Your task to perform on an android device: Do I have any events tomorrow? Image 0: 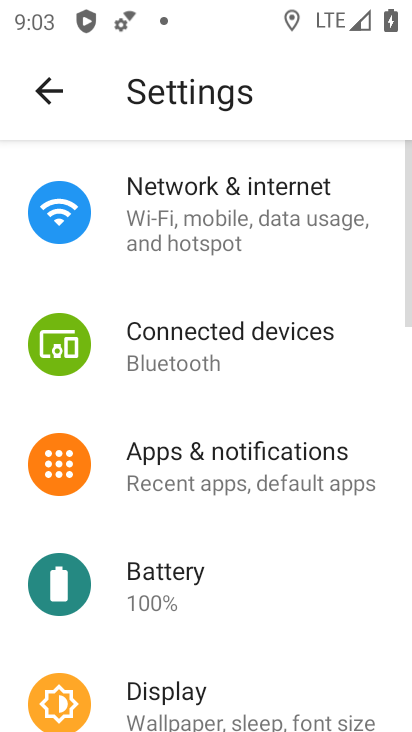
Step 0: press home button
Your task to perform on an android device: Do I have any events tomorrow? Image 1: 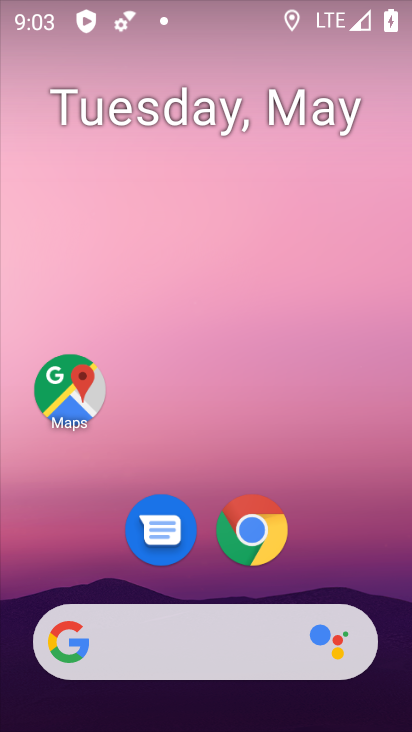
Step 1: drag from (344, 545) to (359, 219)
Your task to perform on an android device: Do I have any events tomorrow? Image 2: 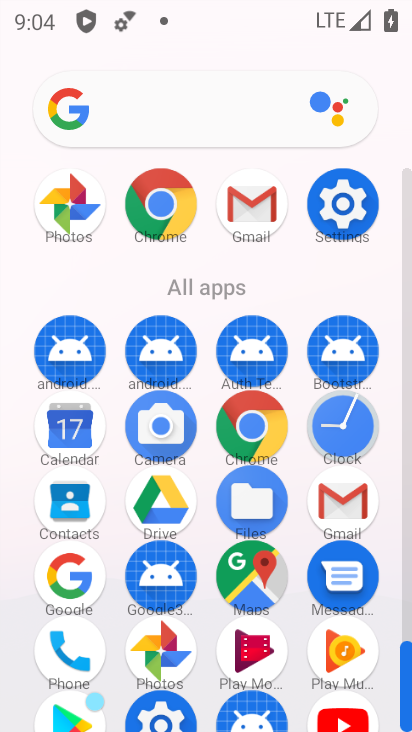
Step 2: click (79, 425)
Your task to perform on an android device: Do I have any events tomorrow? Image 3: 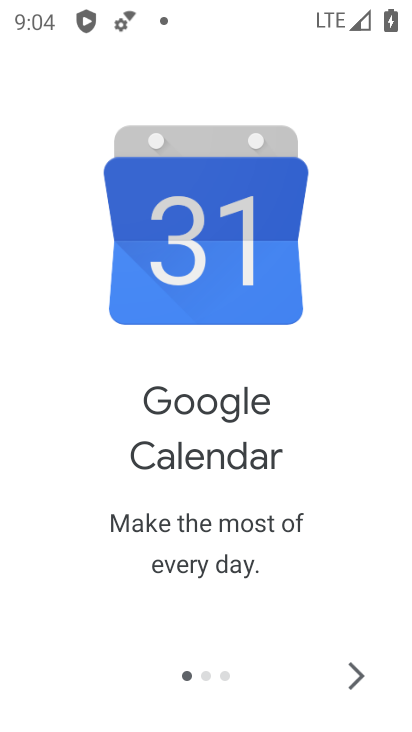
Step 3: click (353, 679)
Your task to perform on an android device: Do I have any events tomorrow? Image 4: 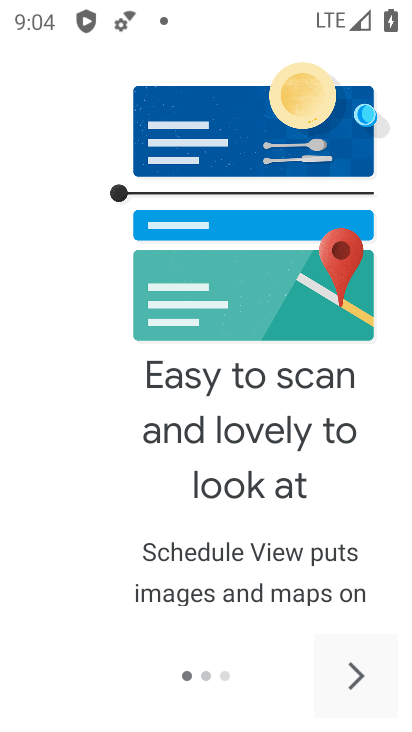
Step 4: click (353, 679)
Your task to perform on an android device: Do I have any events tomorrow? Image 5: 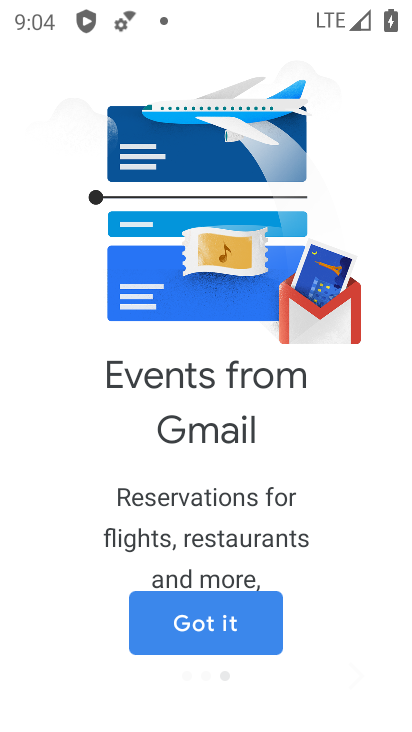
Step 5: click (353, 678)
Your task to perform on an android device: Do I have any events tomorrow? Image 6: 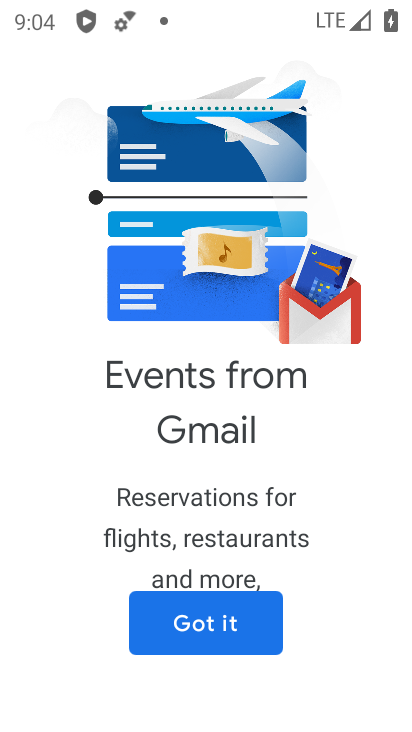
Step 6: click (192, 625)
Your task to perform on an android device: Do I have any events tomorrow? Image 7: 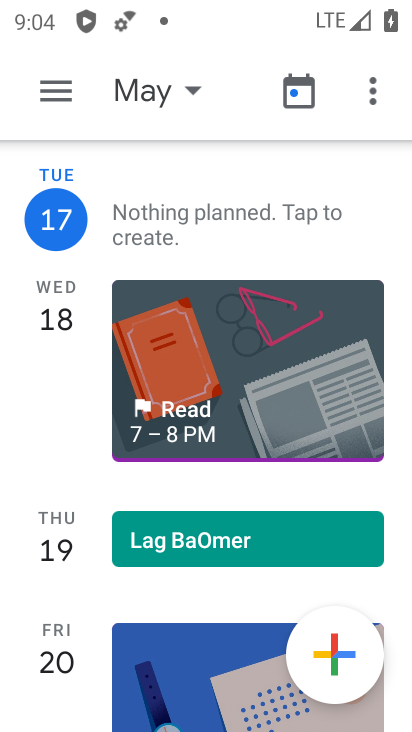
Step 7: click (76, 317)
Your task to perform on an android device: Do I have any events tomorrow? Image 8: 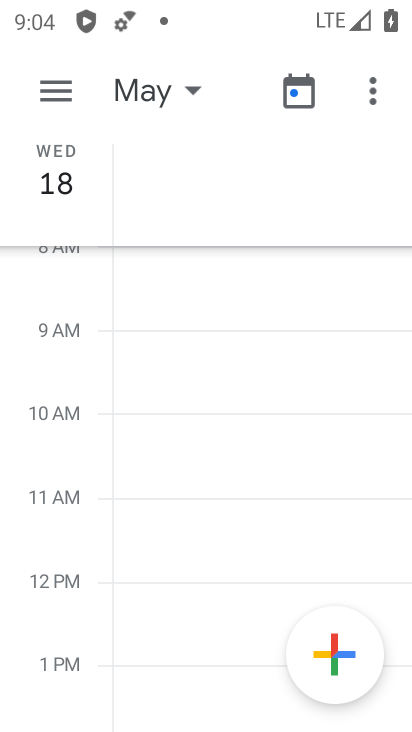
Step 8: task complete